Your task to perform on an android device: Open Yahoo.com Image 0: 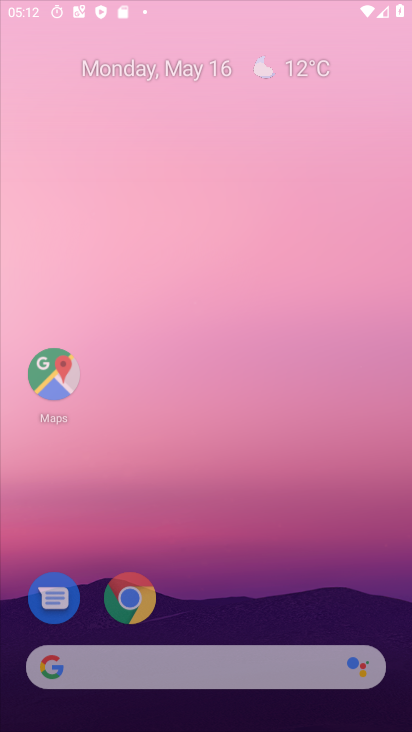
Step 0: press back button
Your task to perform on an android device: Open Yahoo.com Image 1: 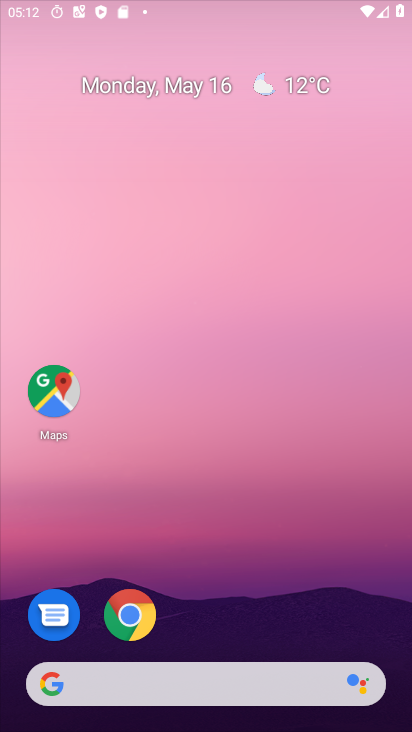
Step 1: click (84, 304)
Your task to perform on an android device: Open Yahoo.com Image 2: 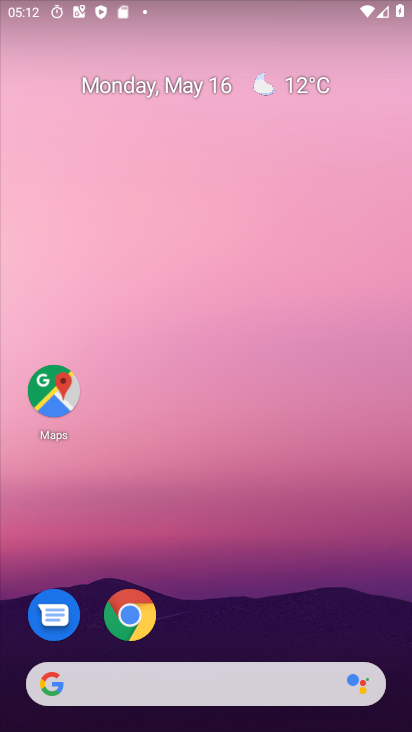
Step 2: drag from (279, 620) to (95, 43)
Your task to perform on an android device: Open Yahoo.com Image 3: 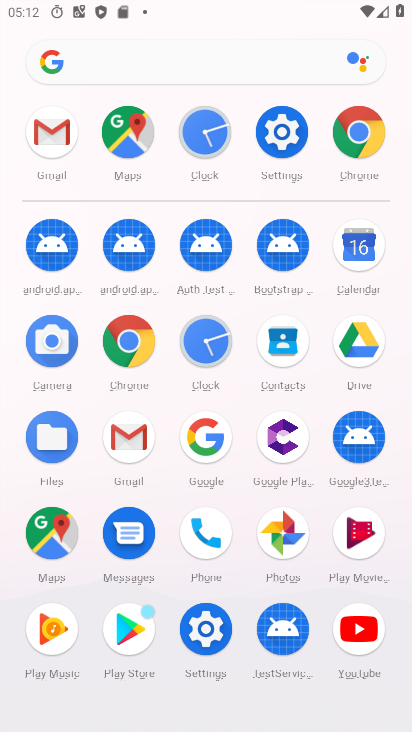
Step 3: click (361, 132)
Your task to perform on an android device: Open Yahoo.com Image 4: 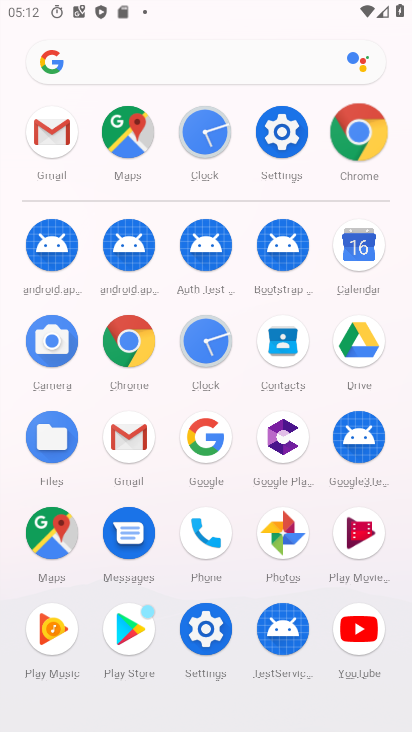
Step 4: click (361, 132)
Your task to perform on an android device: Open Yahoo.com Image 5: 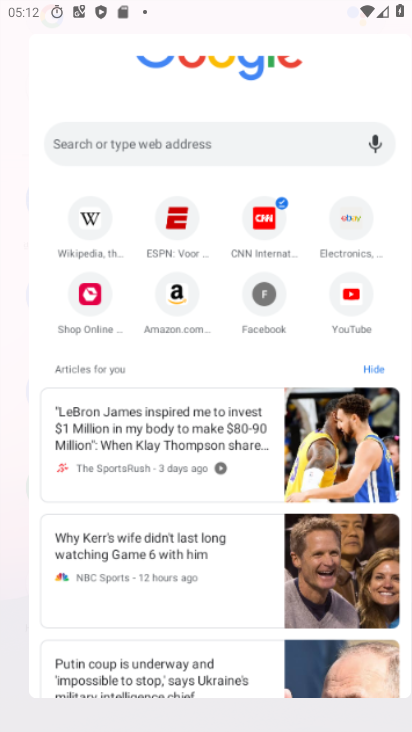
Step 5: click (361, 132)
Your task to perform on an android device: Open Yahoo.com Image 6: 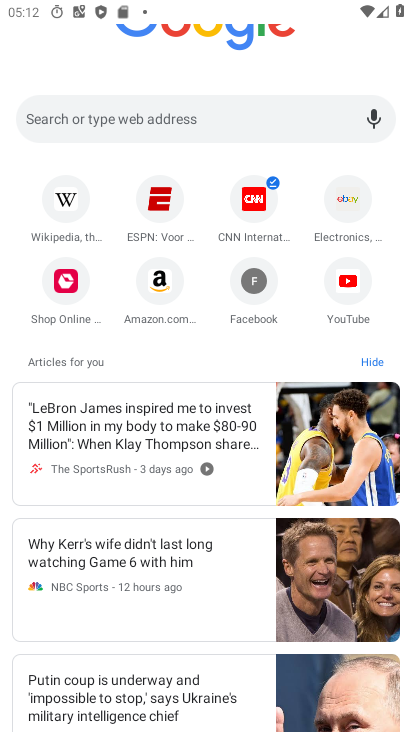
Step 6: click (62, 125)
Your task to perform on an android device: Open Yahoo.com Image 7: 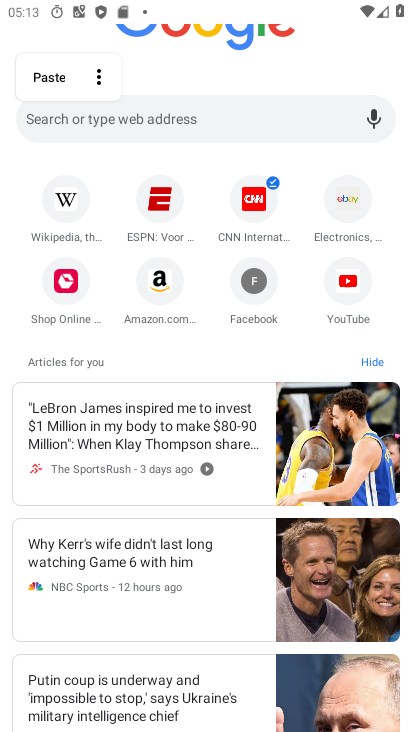
Step 7: type "www.yahoo.com"
Your task to perform on an android device: Open Yahoo.com Image 8: 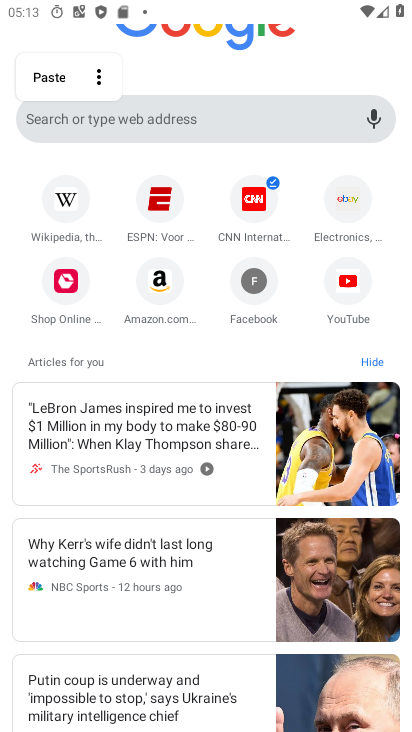
Step 8: click (174, 128)
Your task to perform on an android device: Open Yahoo.com Image 9: 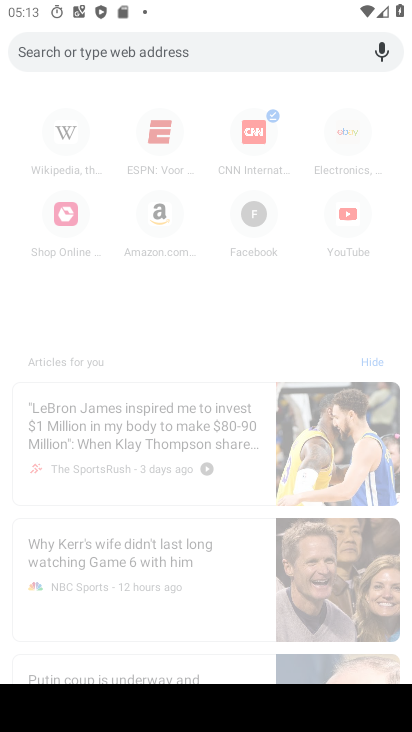
Step 9: type "www.yahoo.com"
Your task to perform on an android device: Open Yahoo.com Image 10: 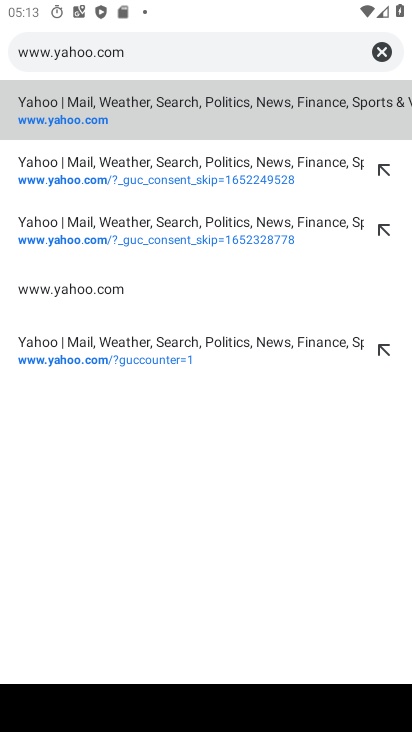
Step 10: click (32, 120)
Your task to perform on an android device: Open Yahoo.com Image 11: 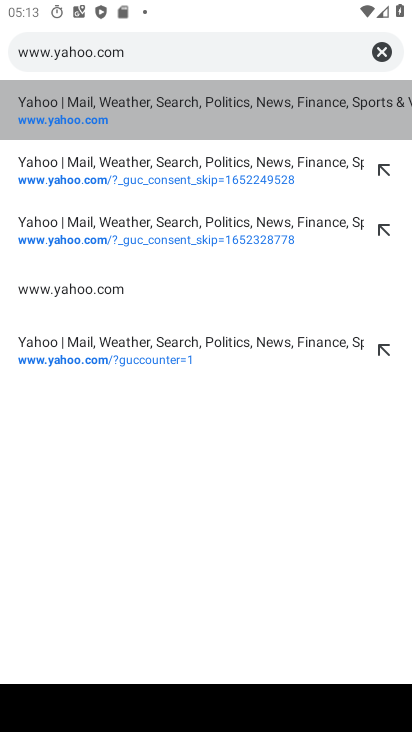
Step 11: click (32, 120)
Your task to perform on an android device: Open Yahoo.com Image 12: 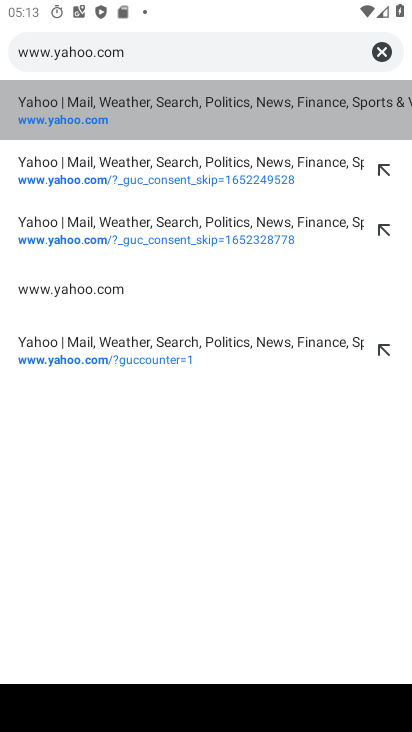
Step 12: click (32, 120)
Your task to perform on an android device: Open Yahoo.com Image 13: 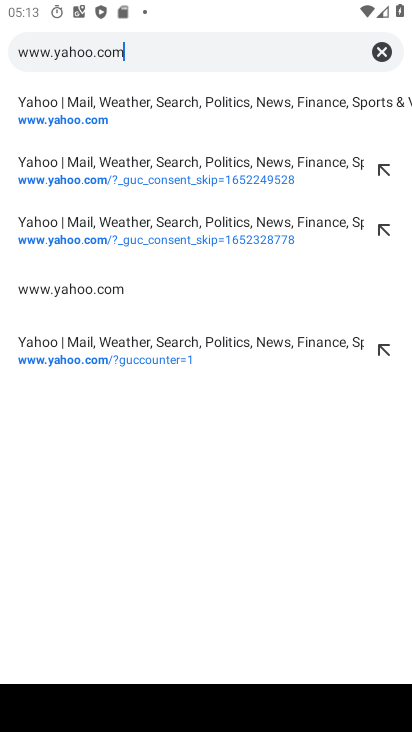
Step 13: task complete